Your task to perform on an android device: Open my contact list Image 0: 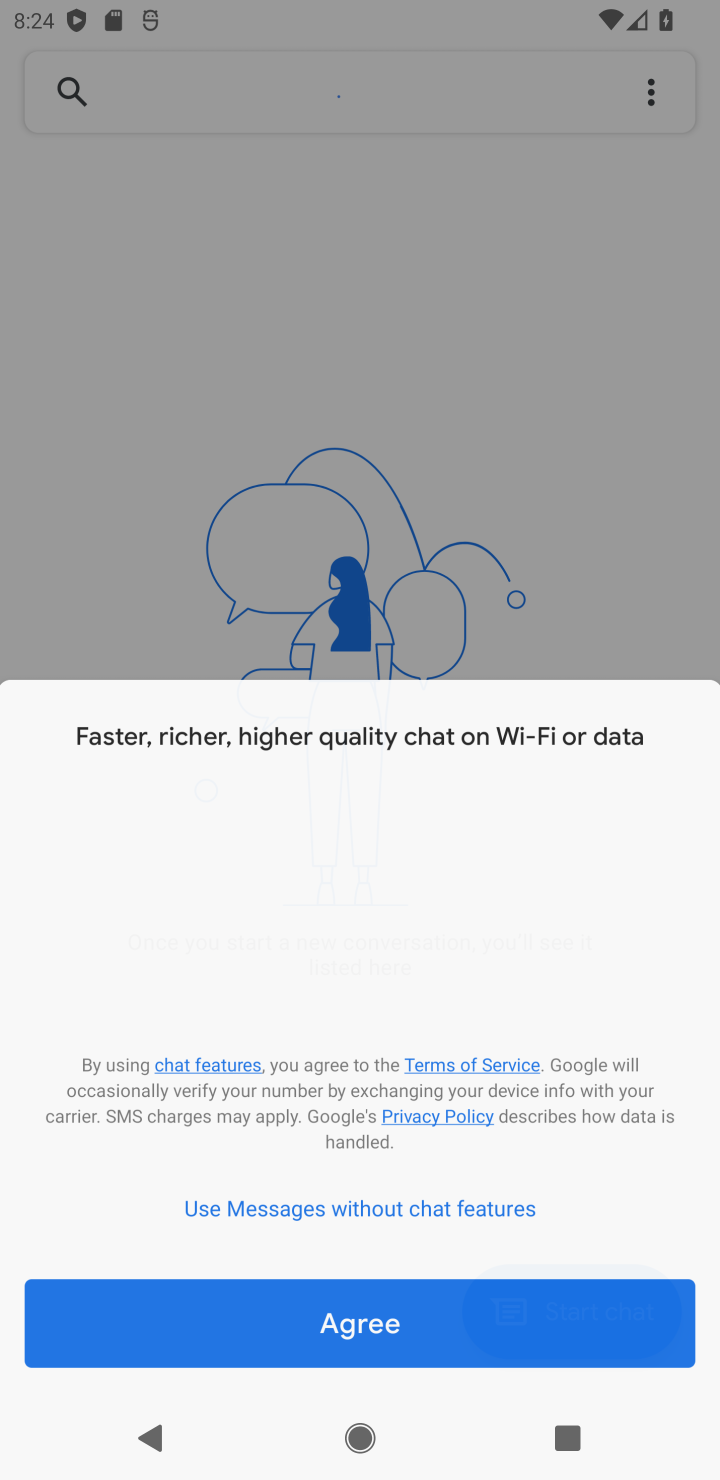
Step 0: press home button
Your task to perform on an android device: Open my contact list Image 1: 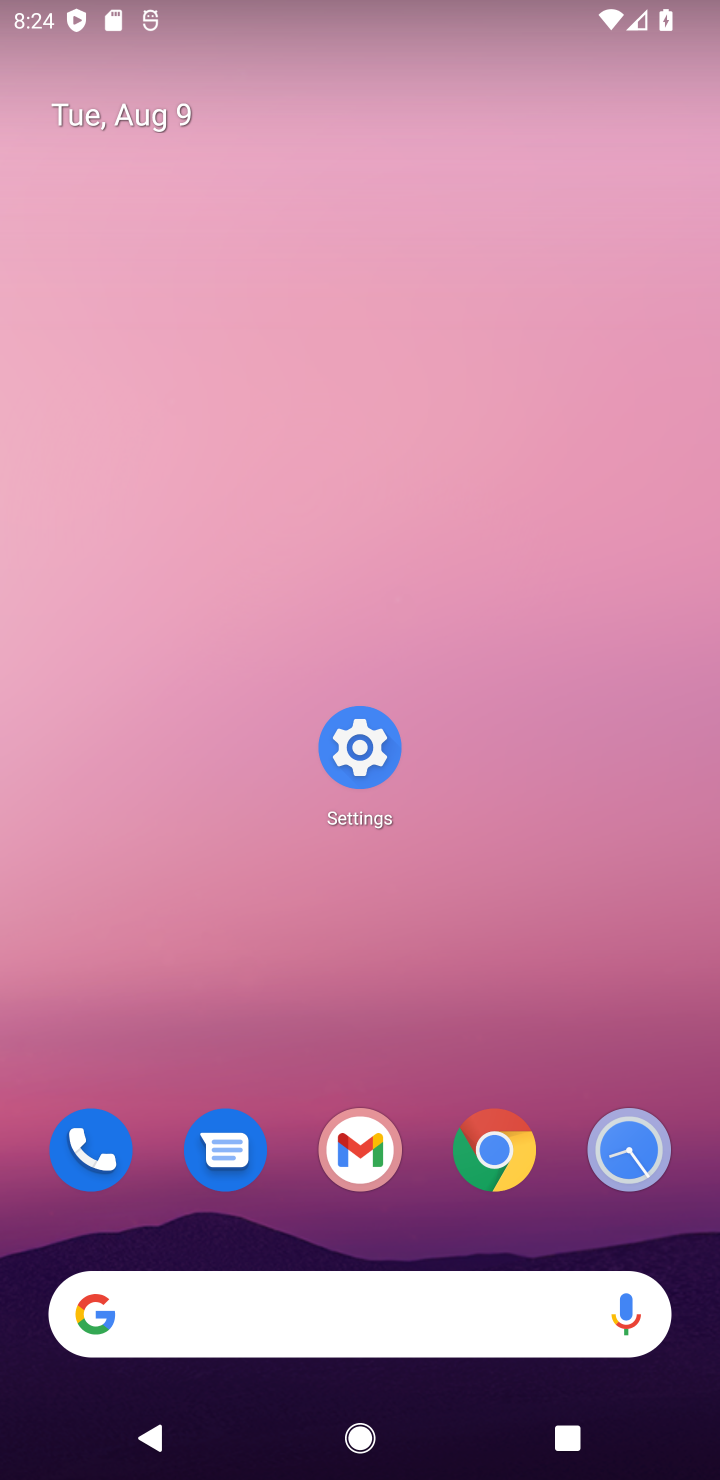
Step 1: drag from (285, 1316) to (504, 345)
Your task to perform on an android device: Open my contact list Image 2: 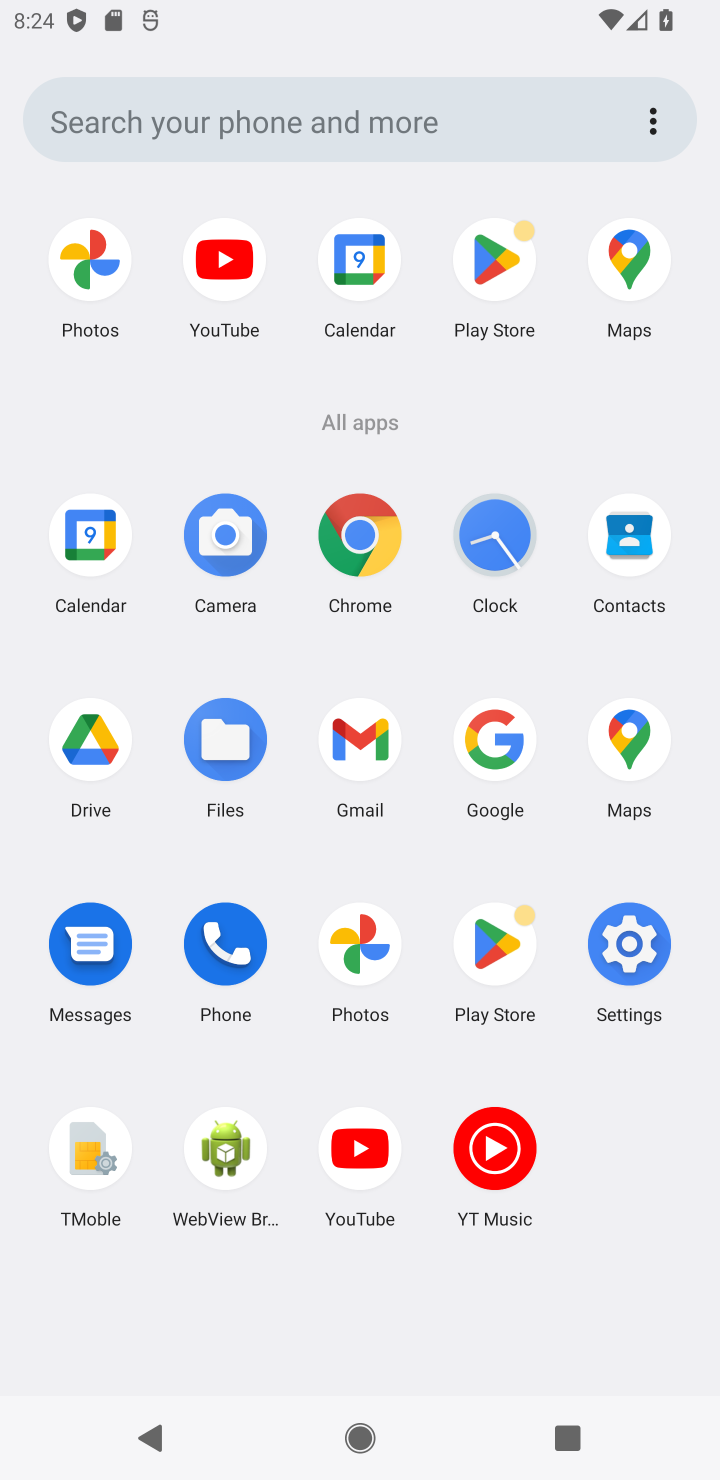
Step 2: click (628, 555)
Your task to perform on an android device: Open my contact list Image 3: 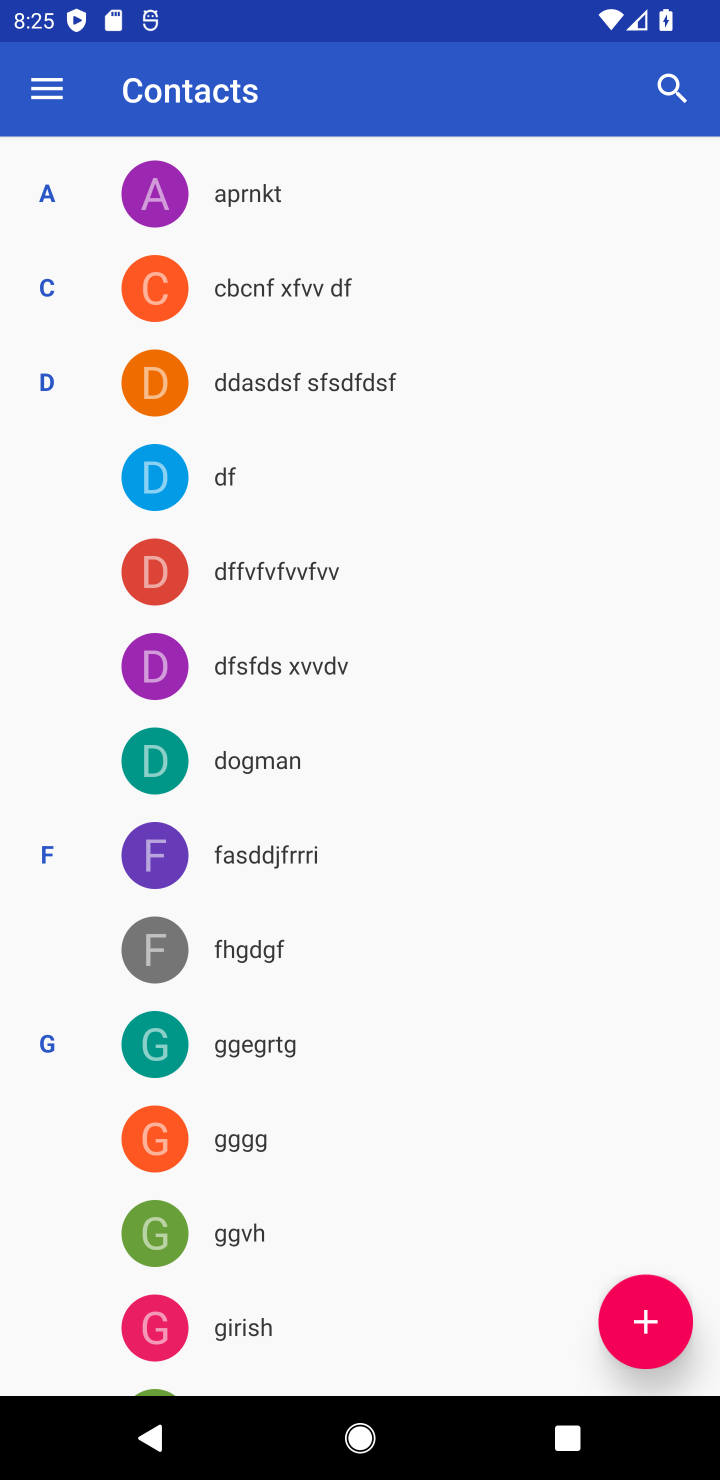
Step 3: task complete